Your task to perform on an android device: change notification settings in the gmail app Image 0: 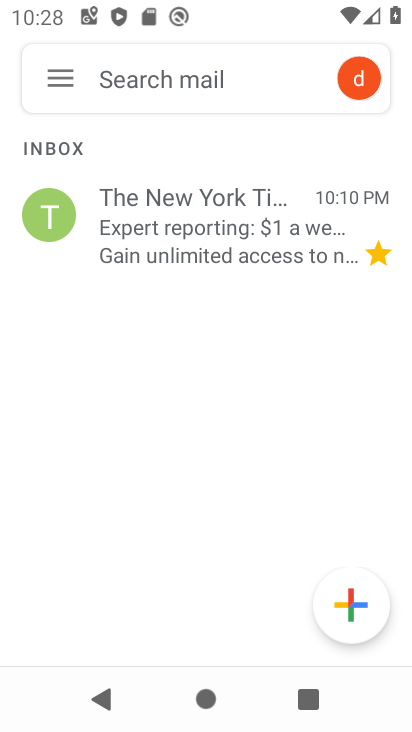
Step 0: click (58, 87)
Your task to perform on an android device: change notification settings in the gmail app Image 1: 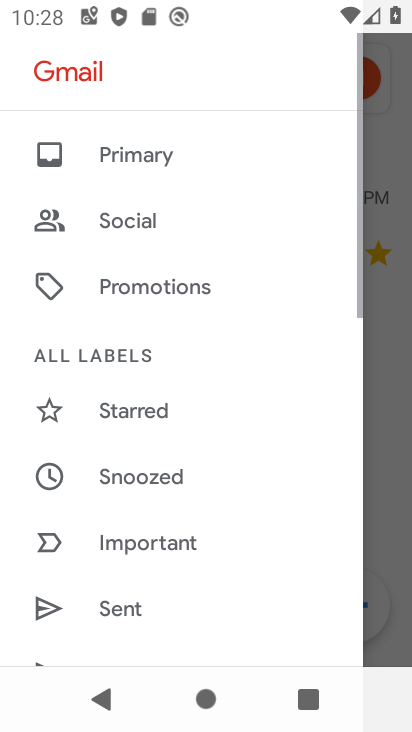
Step 1: drag from (171, 568) to (180, 97)
Your task to perform on an android device: change notification settings in the gmail app Image 2: 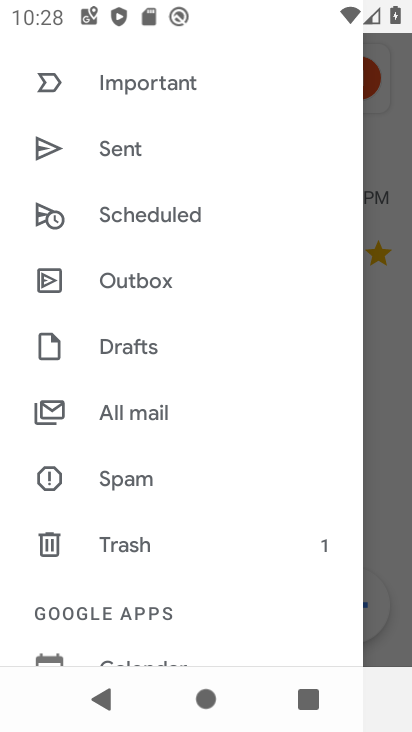
Step 2: drag from (187, 565) to (194, 184)
Your task to perform on an android device: change notification settings in the gmail app Image 3: 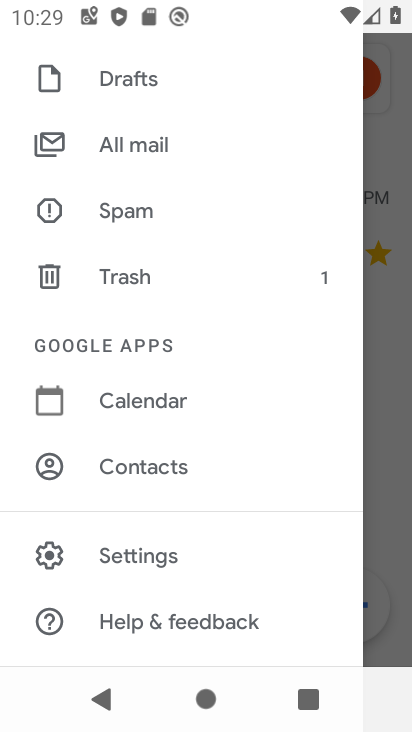
Step 3: click (154, 560)
Your task to perform on an android device: change notification settings in the gmail app Image 4: 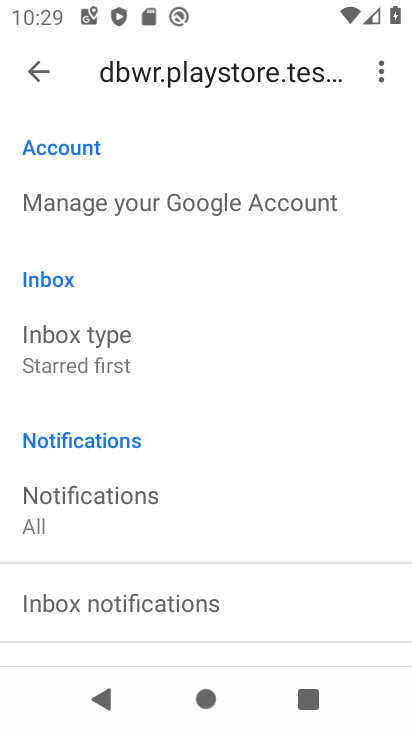
Step 4: click (152, 512)
Your task to perform on an android device: change notification settings in the gmail app Image 5: 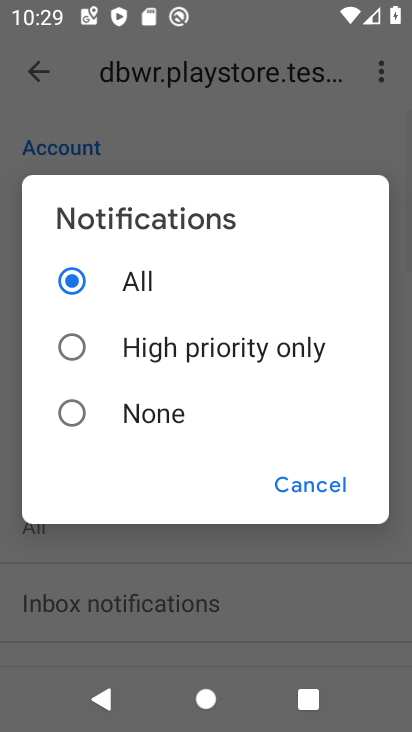
Step 5: click (165, 359)
Your task to perform on an android device: change notification settings in the gmail app Image 6: 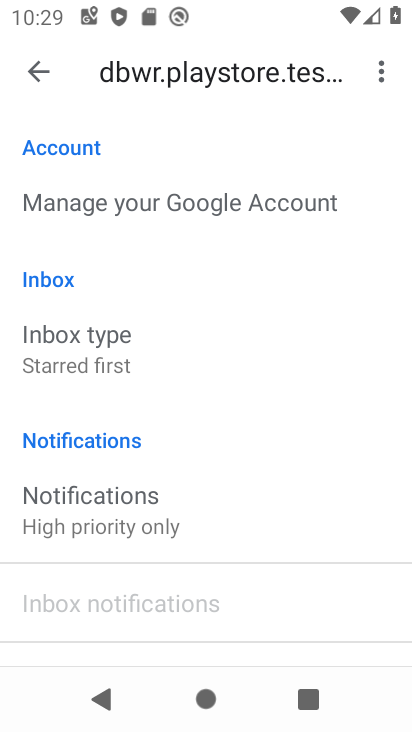
Step 6: task complete